Your task to perform on an android device: turn on location history Image 0: 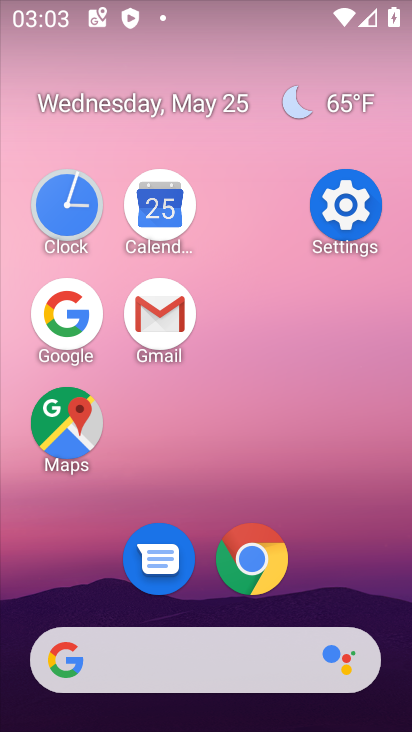
Step 0: click (366, 207)
Your task to perform on an android device: turn on location history Image 1: 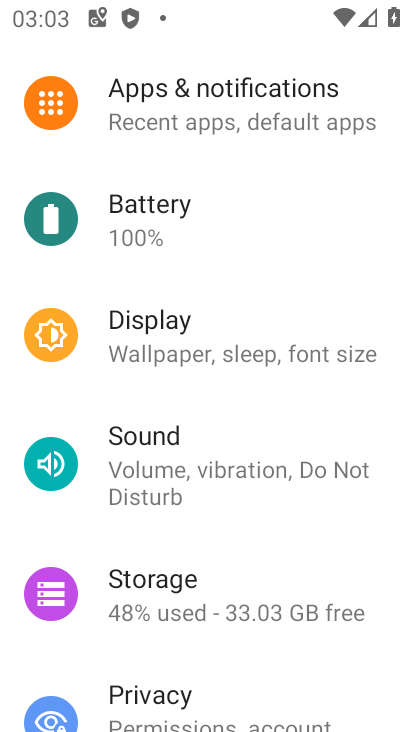
Step 1: drag from (237, 231) to (217, 590)
Your task to perform on an android device: turn on location history Image 2: 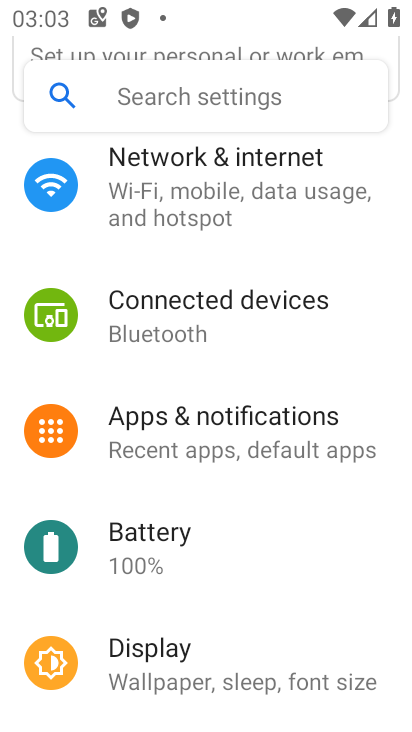
Step 2: drag from (258, 583) to (257, 240)
Your task to perform on an android device: turn on location history Image 3: 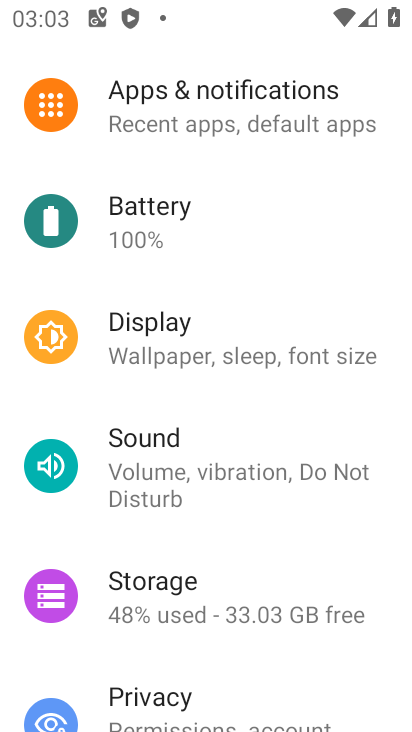
Step 3: drag from (265, 562) to (242, 116)
Your task to perform on an android device: turn on location history Image 4: 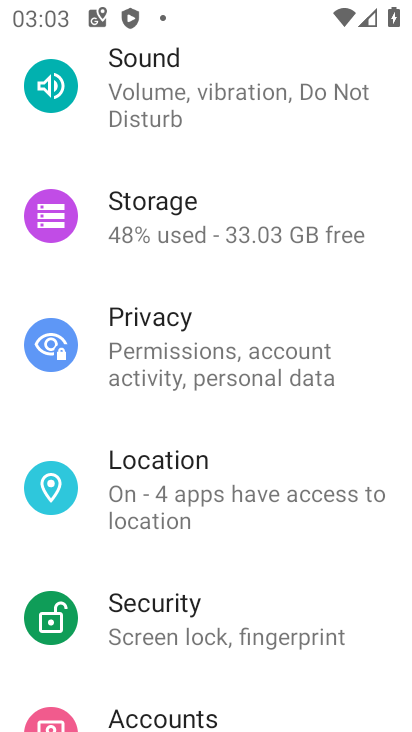
Step 4: click (271, 489)
Your task to perform on an android device: turn on location history Image 5: 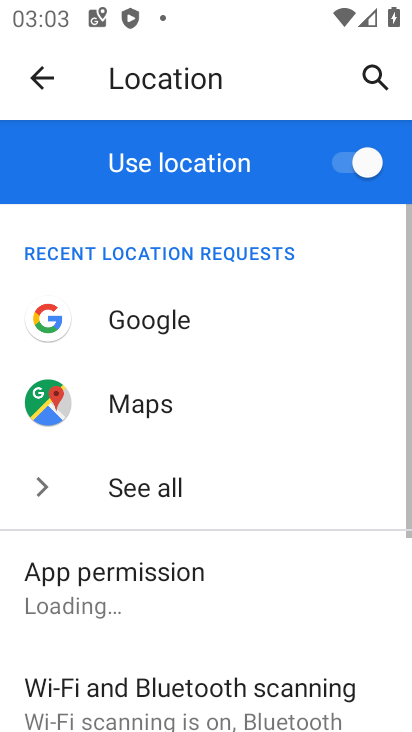
Step 5: drag from (271, 489) to (230, 149)
Your task to perform on an android device: turn on location history Image 6: 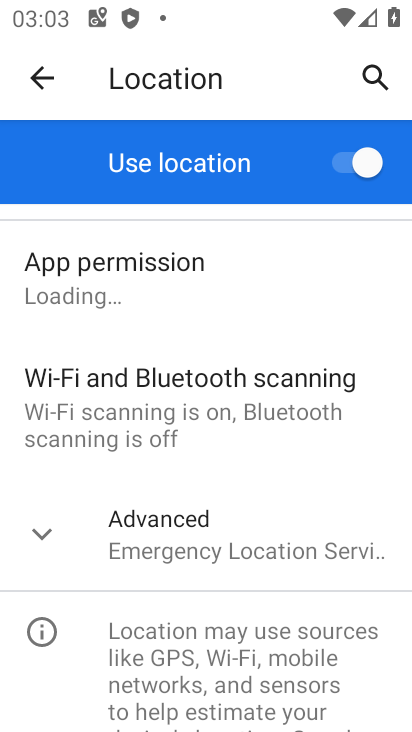
Step 6: click (232, 504)
Your task to perform on an android device: turn on location history Image 7: 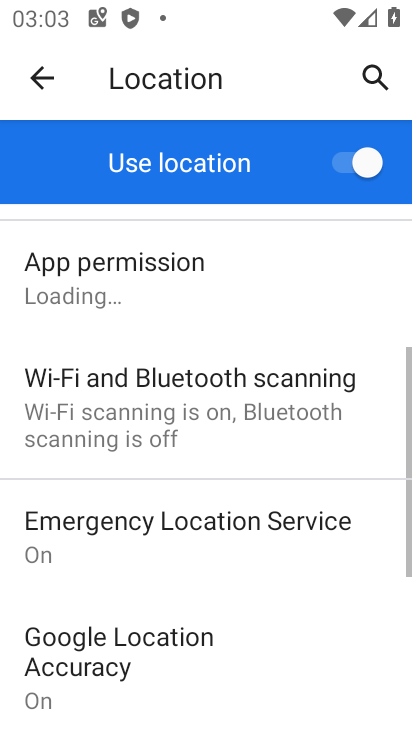
Step 7: drag from (227, 601) to (202, 192)
Your task to perform on an android device: turn on location history Image 8: 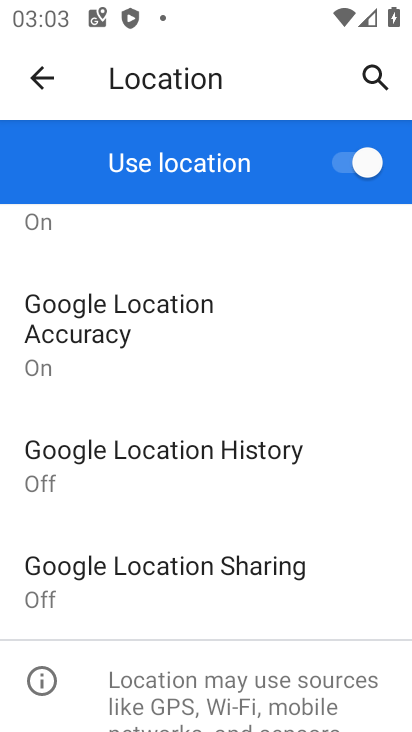
Step 8: click (246, 460)
Your task to perform on an android device: turn on location history Image 9: 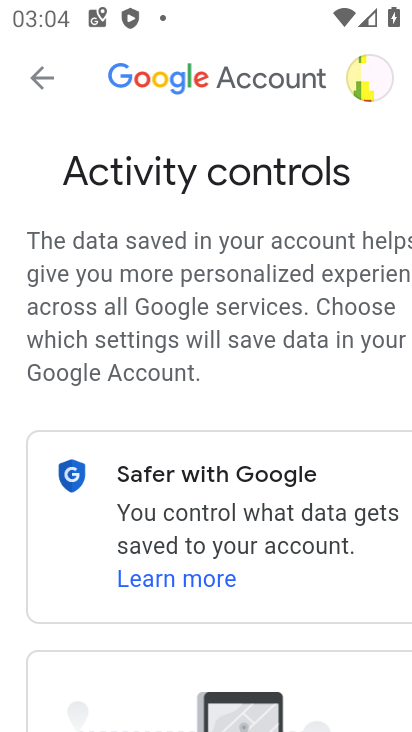
Step 9: drag from (313, 698) to (315, 301)
Your task to perform on an android device: turn on location history Image 10: 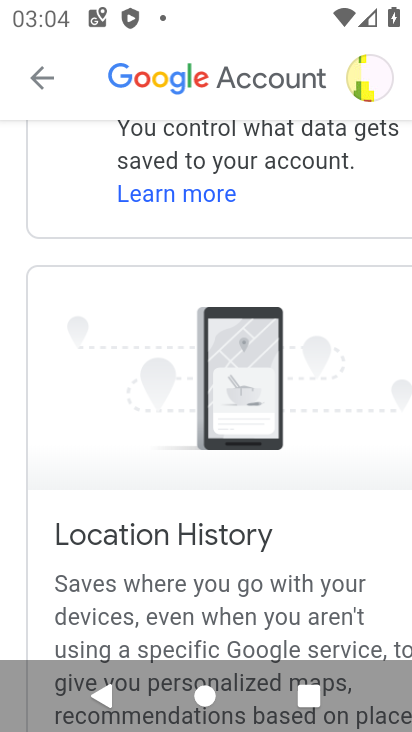
Step 10: drag from (313, 525) to (275, 154)
Your task to perform on an android device: turn on location history Image 11: 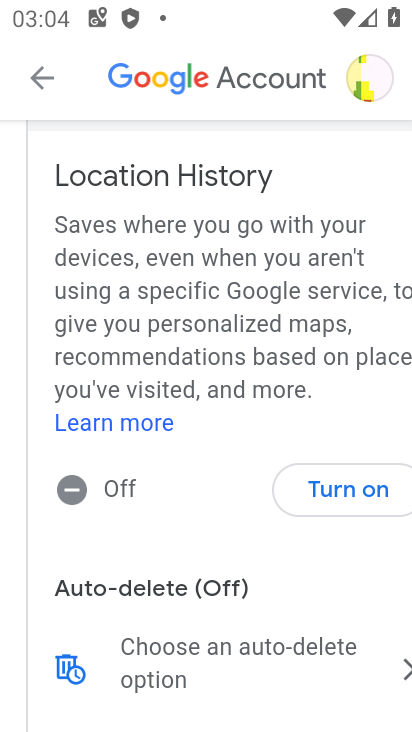
Step 11: click (331, 493)
Your task to perform on an android device: turn on location history Image 12: 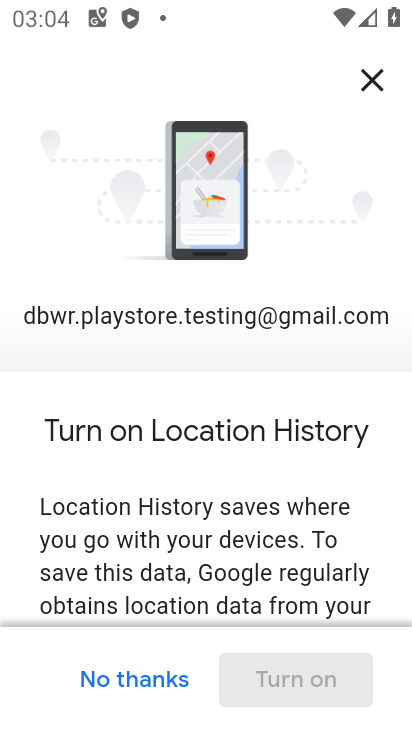
Step 12: drag from (298, 584) to (302, 59)
Your task to perform on an android device: turn on location history Image 13: 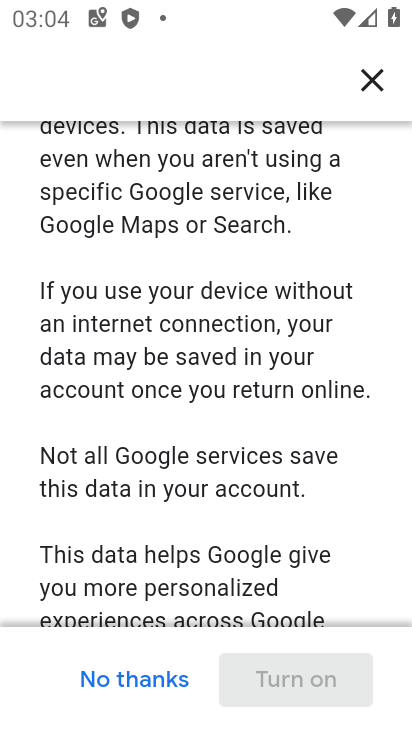
Step 13: drag from (319, 568) to (295, 99)
Your task to perform on an android device: turn on location history Image 14: 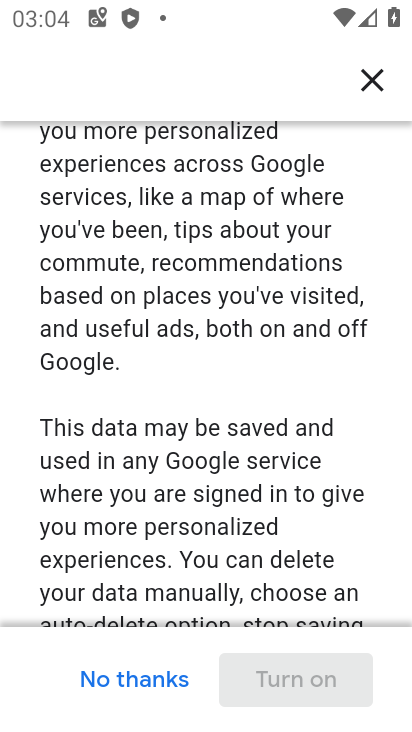
Step 14: drag from (288, 344) to (222, 83)
Your task to perform on an android device: turn on location history Image 15: 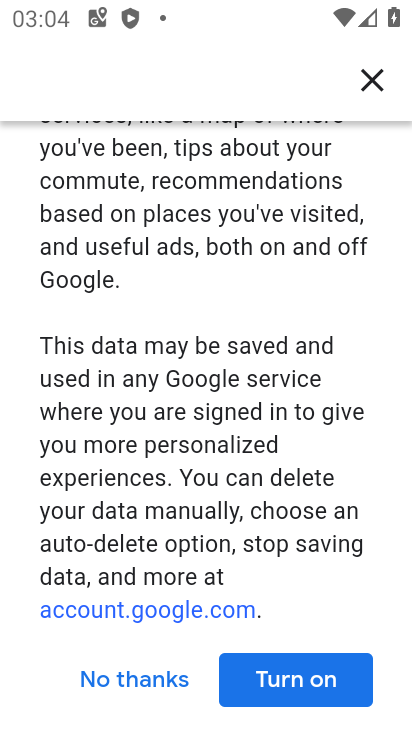
Step 15: click (286, 667)
Your task to perform on an android device: turn on location history Image 16: 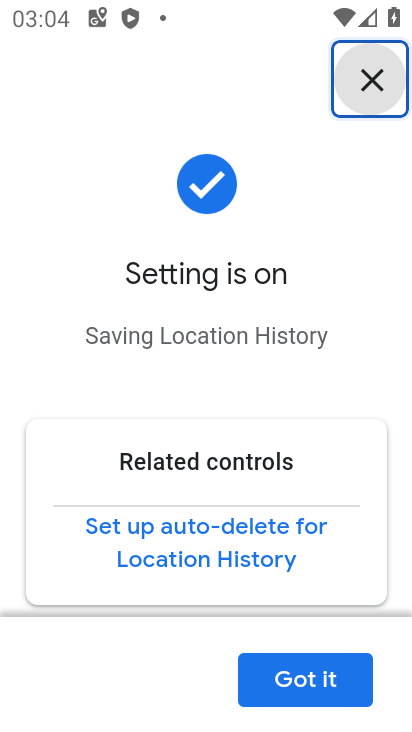
Step 16: click (305, 675)
Your task to perform on an android device: turn on location history Image 17: 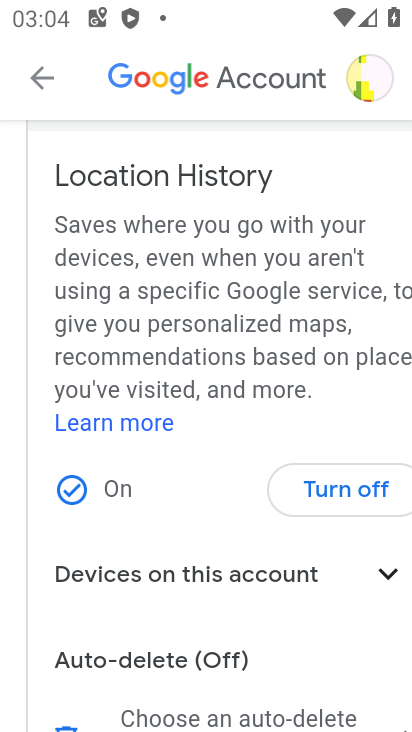
Step 17: task complete